Your task to perform on an android device: Open calendar and show me the third week of next month Image 0: 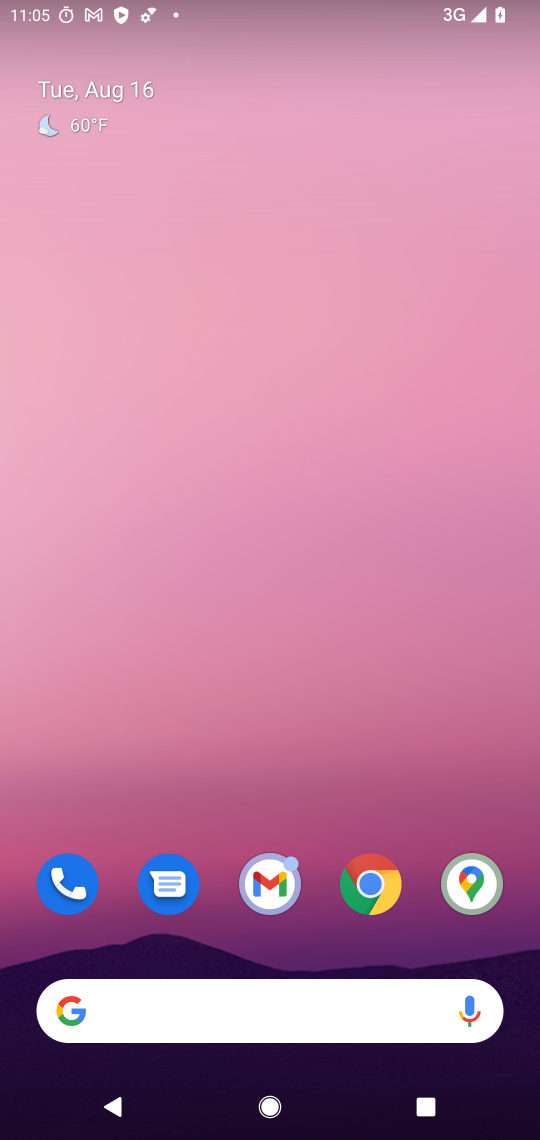
Step 0: drag from (232, 870) to (233, 77)
Your task to perform on an android device: Open calendar and show me the third week of next month Image 1: 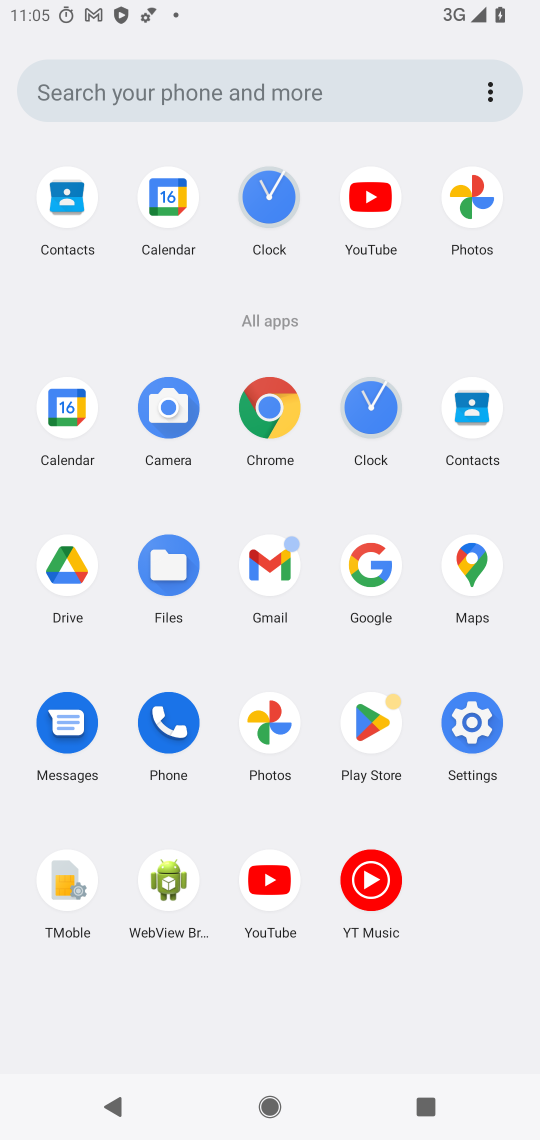
Step 1: click (68, 411)
Your task to perform on an android device: Open calendar and show me the third week of next month Image 2: 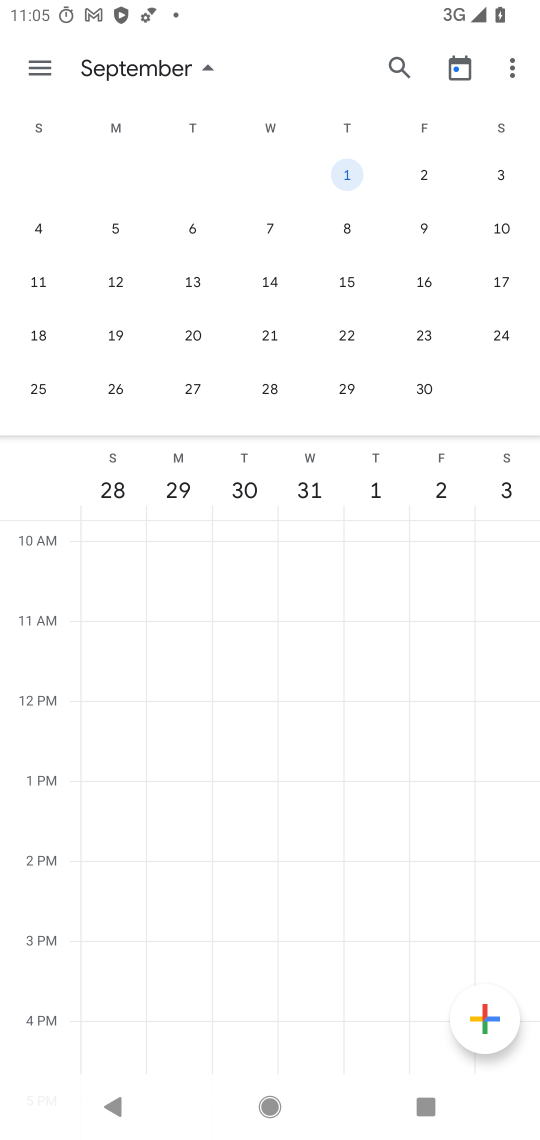
Step 2: click (33, 292)
Your task to perform on an android device: Open calendar and show me the third week of next month Image 3: 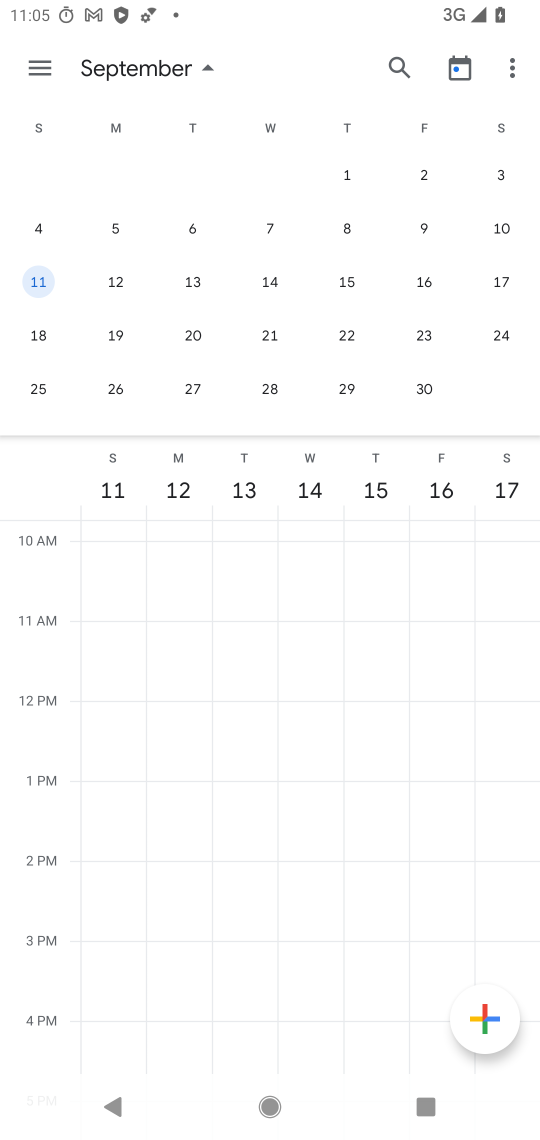
Step 3: task complete